Your task to perform on an android device: See recent photos Image 0: 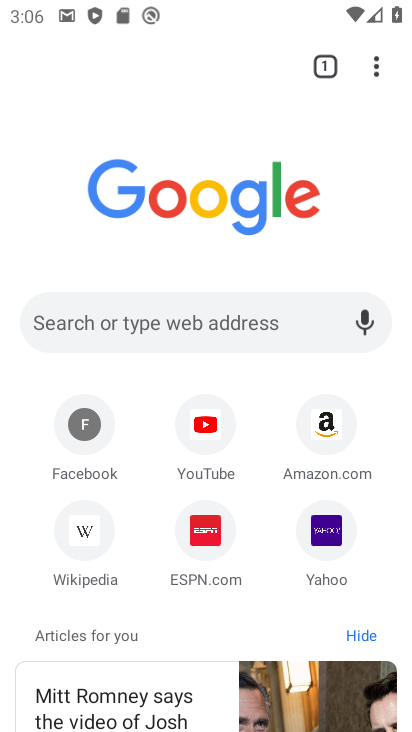
Step 0: press home button
Your task to perform on an android device: See recent photos Image 1: 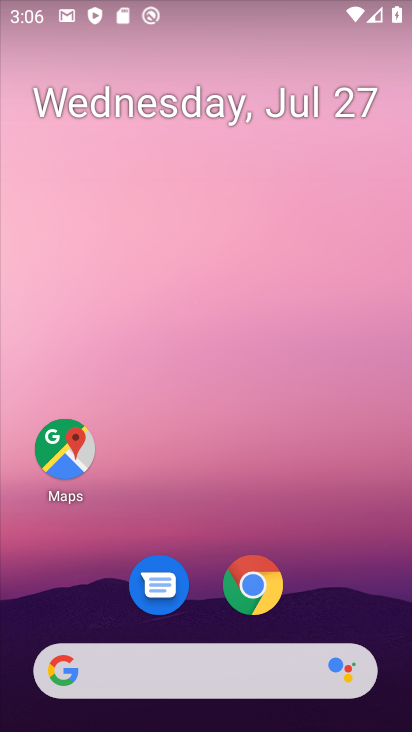
Step 1: drag from (314, 550) to (401, 101)
Your task to perform on an android device: See recent photos Image 2: 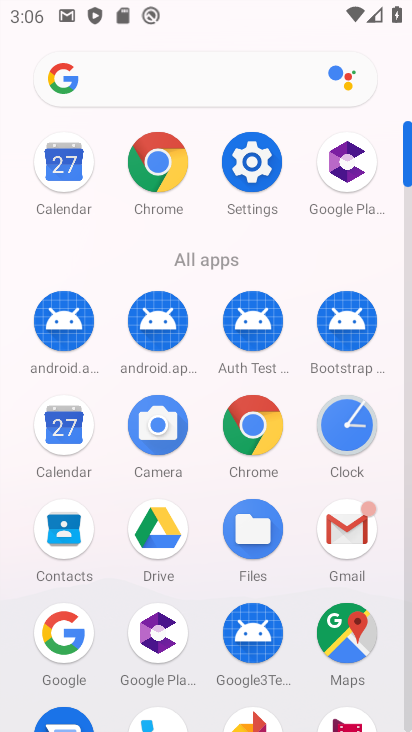
Step 2: drag from (207, 548) to (212, 136)
Your task to perform on an android device: See recent photos Image 3: 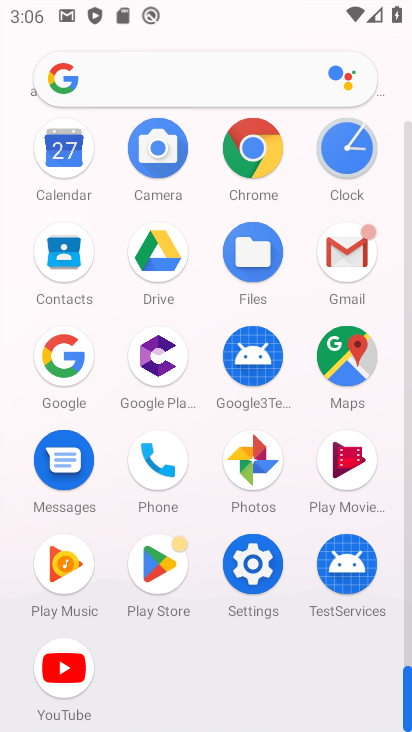
Step 3: click (256, 456)
Your task to perform on an android device: See recent photos Image 4: 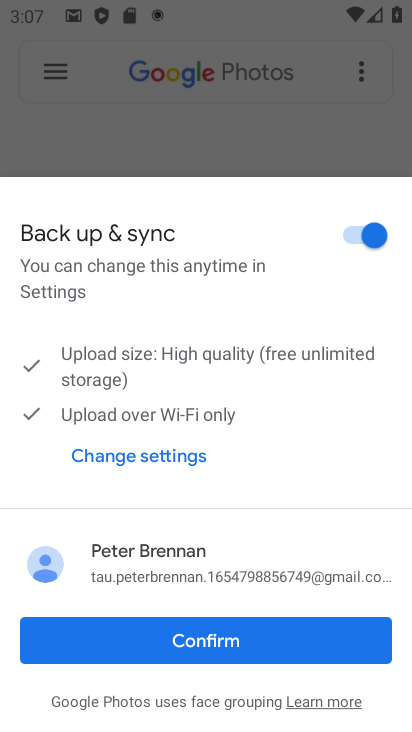
Step 4: click (297, 632)
Your task to perform on an android device: See recent photos Image 5: 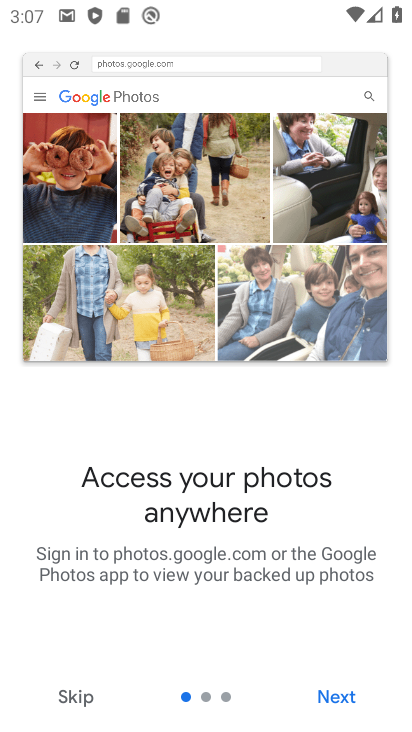
Step 5: click (345, 697)
Your task to perform on an android device: See recent photos Image 6: 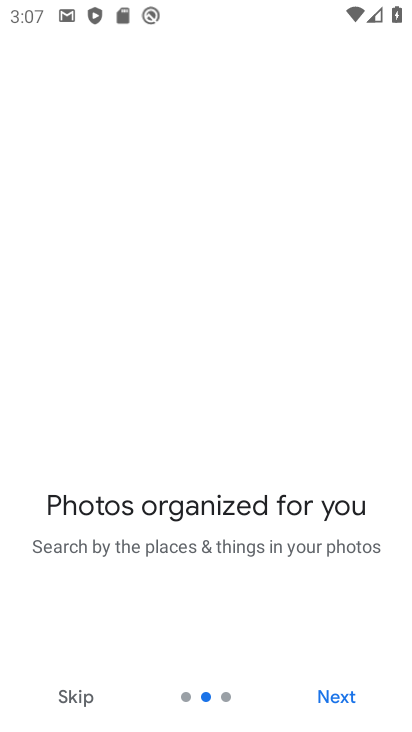
Step 6: click (345, 693)
Your task to perform on an android device: See recent photos Image 7: 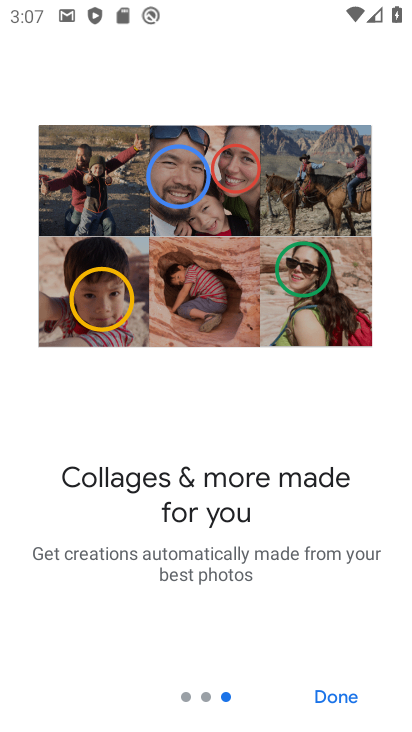
Step 7: click (345, 693)
Your task to perform on an android device: See recent photos Image 8: 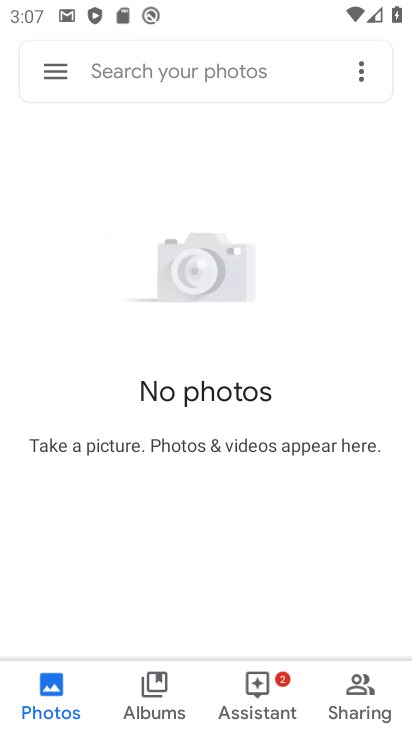
Step 8: task complete